Your task to perform on an android device: Open calendar and show me the second week of next month Image 0: 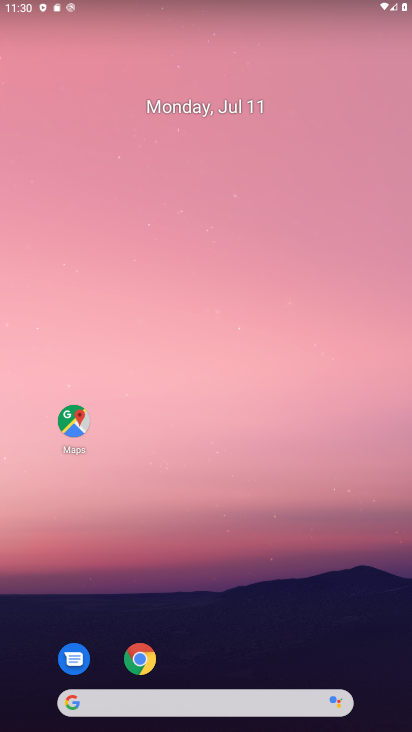
Step 0: drag from (180, 684) to (269, 316)
Your task to perform on an android device: Open calendar and show me the second week of next month Image 1: 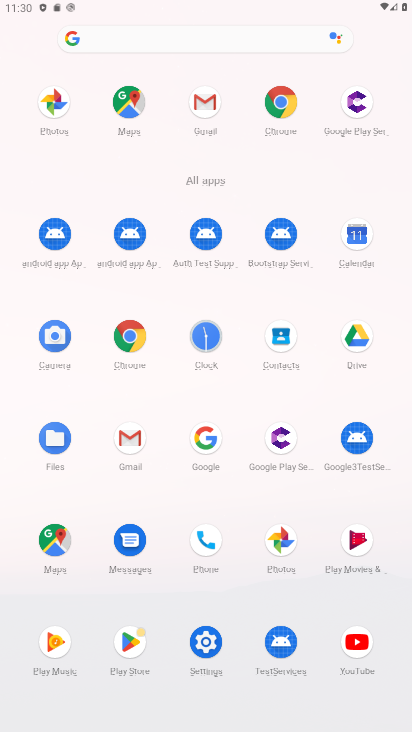
Step 1: click (356, 232)
Your task to perform on an android device: Open calendar and show me the second week of next month Image 2: 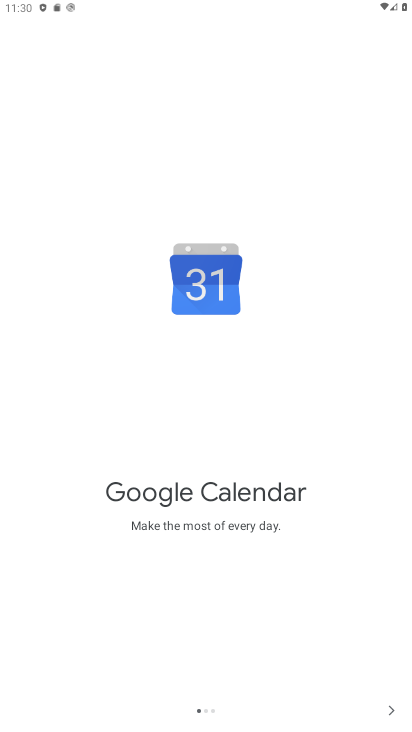
Step 2: click (392, 708)
Your task to perform on an android device: Open calendar and show me the second week of next month Image 3: 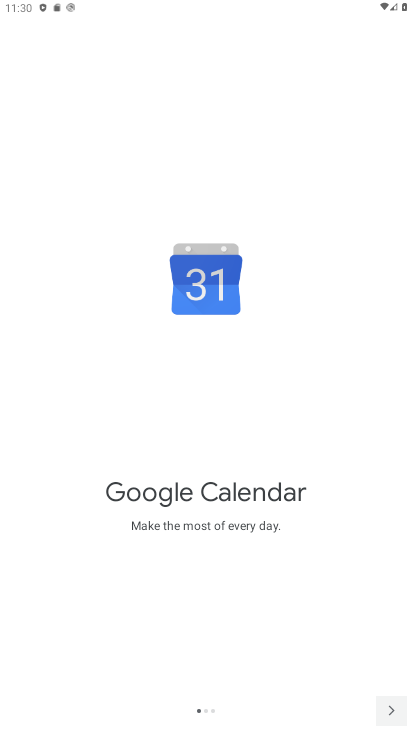
Step 3: click (392, 708)
Your task to perform on an android device: Open calendar and show me the second week of next month Image 4: 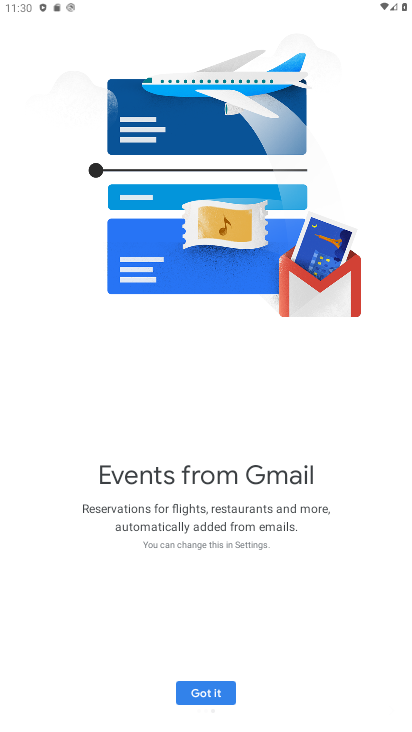
Step 4: click (392, 708)
Your task to perform on an android device: Open calendar and show me the second week of next month Image 5: 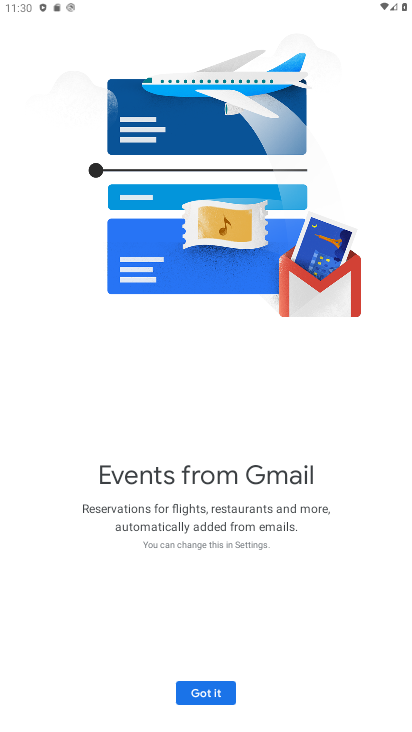
Step 5: click (392, 708)
Your task to perform on an android device: Open calendar and show me the second week of next month Image 6: 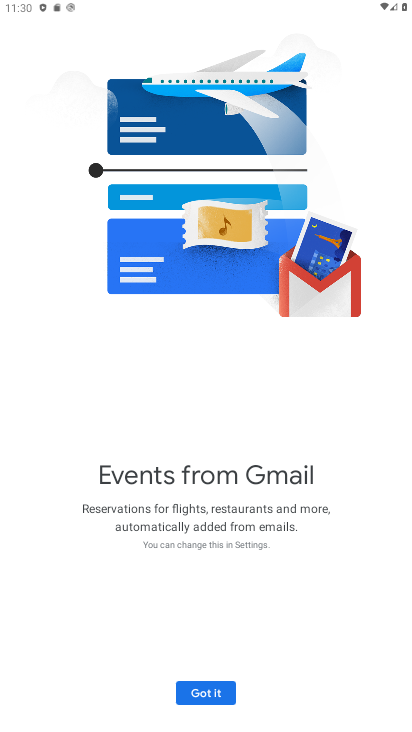
Step 6: click (213, 691)
Your task to perform on an android device: Open calendar and show me the second week of next month Image 7: 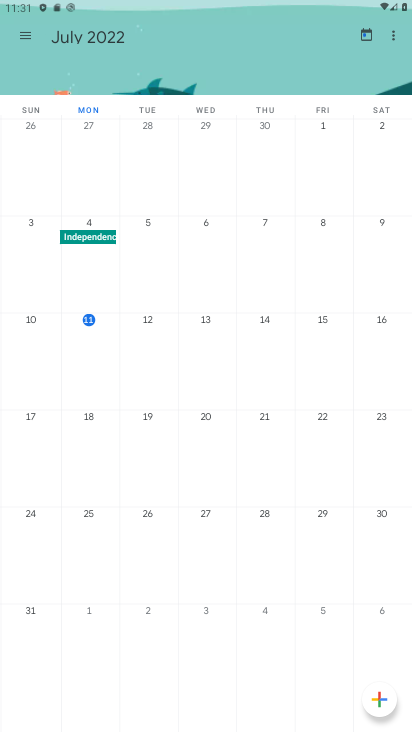
Step 7: drag from (182, 573) to (252, 282)
Your task to perform on an android device: Open calendar and show me the second week of next month Image 8: 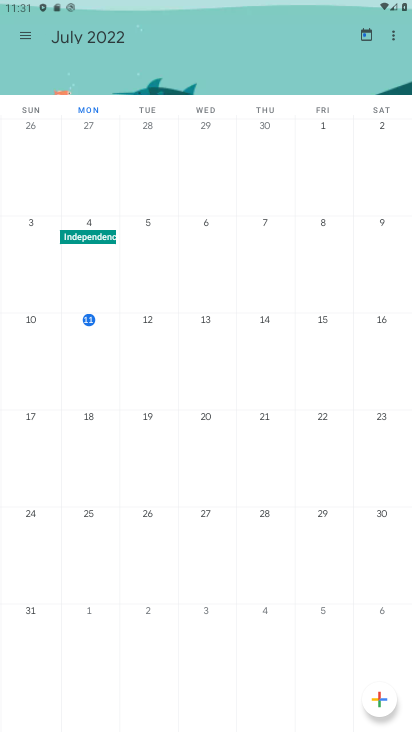
Step 8: drag from (256, 178) to (175, 726)
Your task to perform on an android device: Open calendar and show me the second week of next month Image 9: 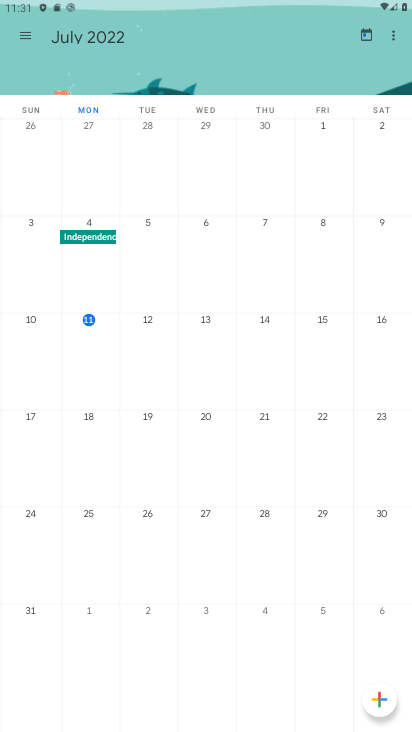
Step 9: drag from (365, 361) to (45, 347)
Your task to perform on an android device: Open calendar and show me the second week of next month Image 10: 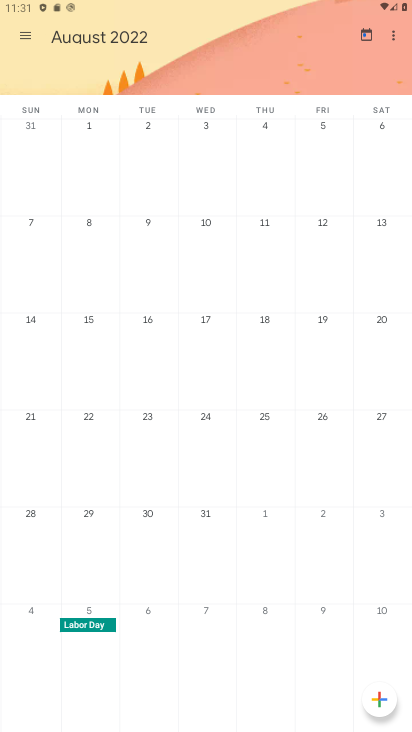
Step 10: click (261, 226)
Your task to perform on an android device: Open calendar and show me the second week of next month Image 11: 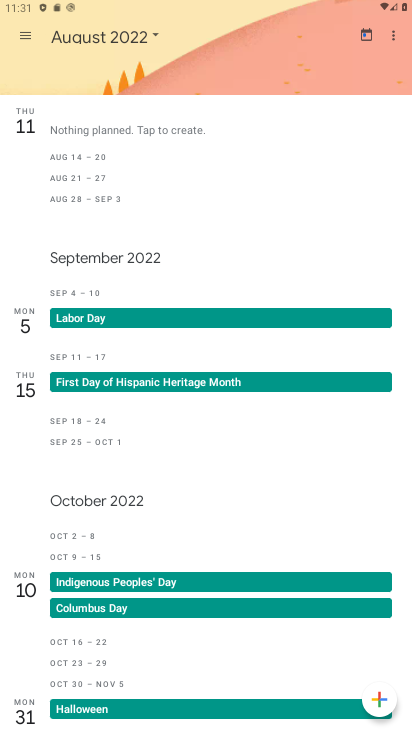
Step 11: task complete